Your task to perform on an android device: Go to ESPN.com Image 0: 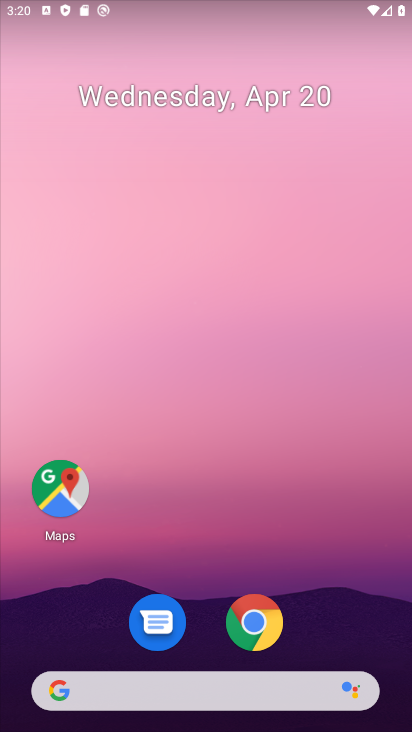
Step 0: drag from (280, 678) to (277, 101)
Your task to perform on an android device: Go to ESPN.com Image 1: 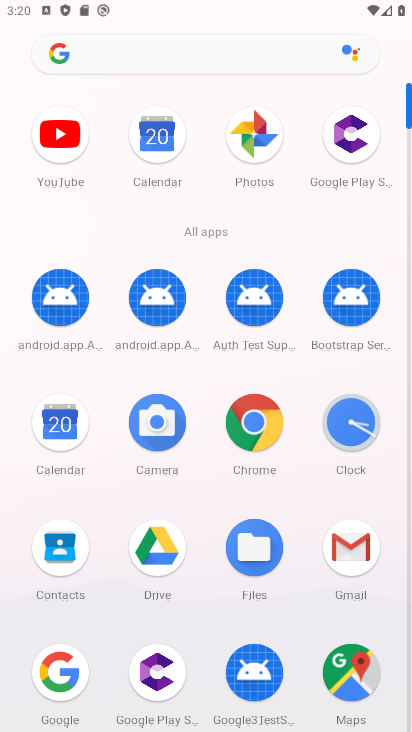
Step 1: drag from (211, 593) to (194, 15)
Your task to perform on an android device: Go to ESPN.com Image 2: 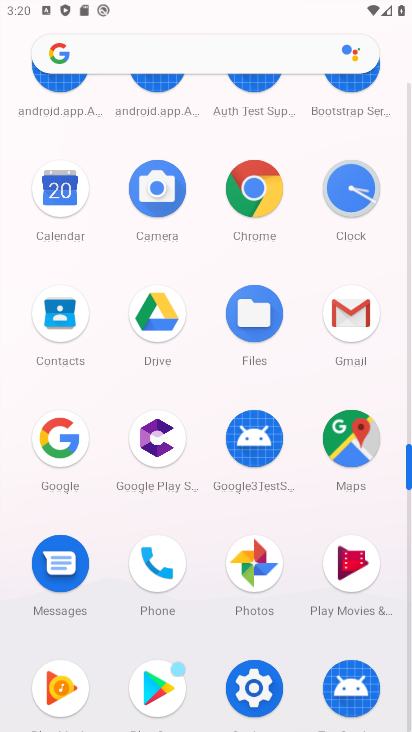
Step 2: click (66, 446)
Your task to perform on an android device: Go to ESPN.com Image 3: 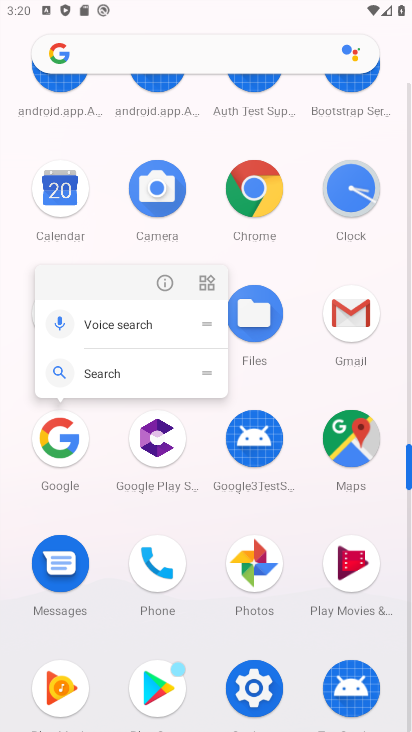
Step 3: click (97, 380)
Your task to perform on an android device: Go to ESPN.com Image 4: 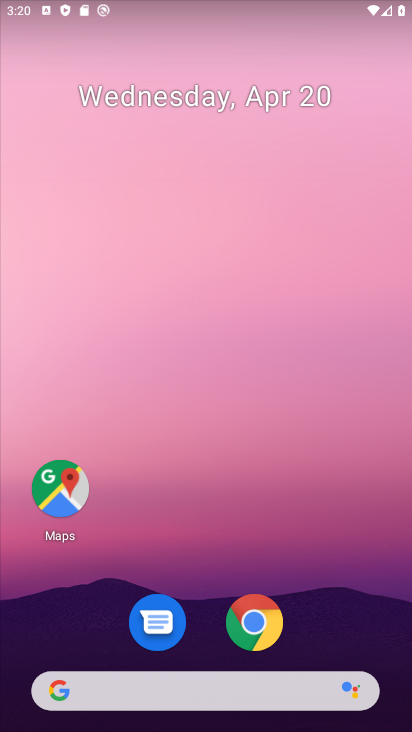
Step 4: click (231, 691)
Your task to perform on an android device: Go to ESPN.com Image 5: 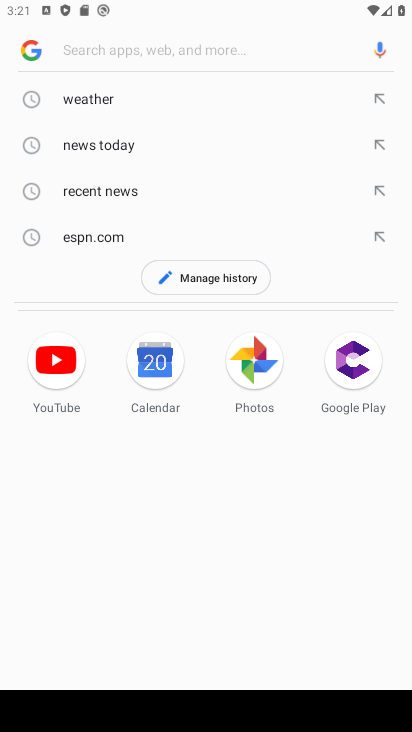
Step 5: click (156, 239)
Your task to perform on an android device: Go to ESPN.com Image 6: 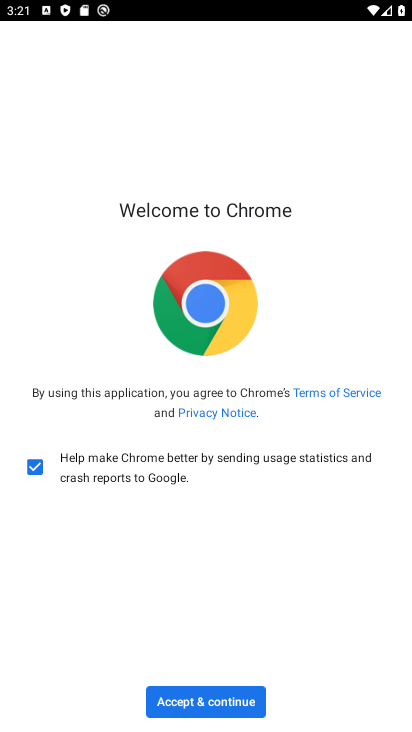
Step 6: click (225, 689)
Your task to perform on an android device: Go to ESPN.com Image 7: 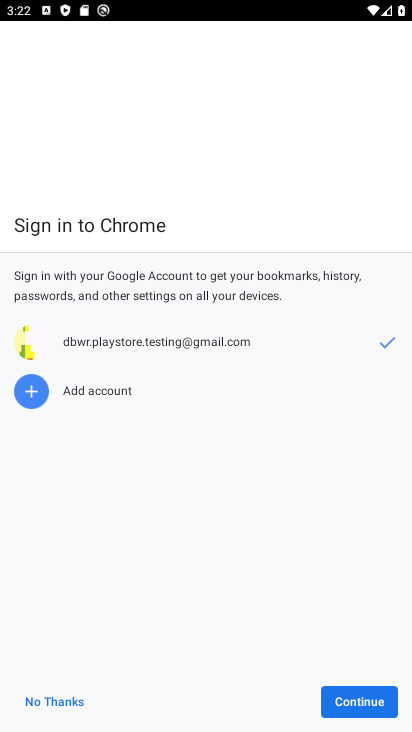
Step 7: click (354, 715)
Your task to perform on an android device: Go to ESPN.com Image 8: 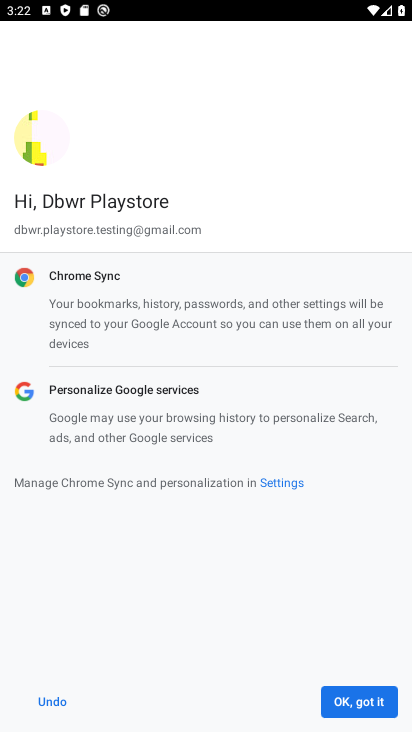
Step 8: click (366, 698)
Your task to perform on an android device: Go to ESPN.com Image 9: 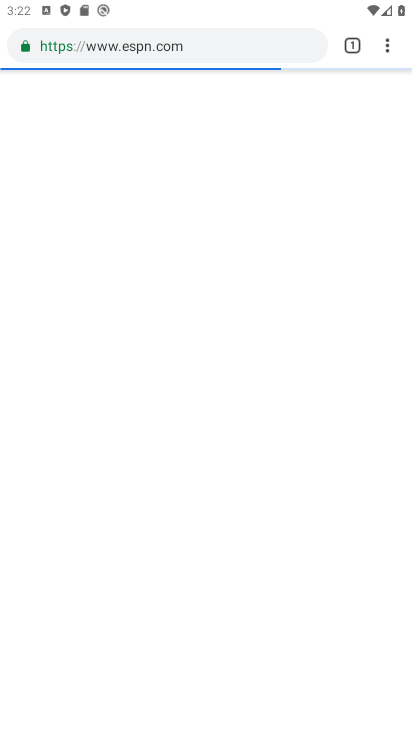
Step 9: task complete